Your task to perform on an android device: Open sound settings Image 0: 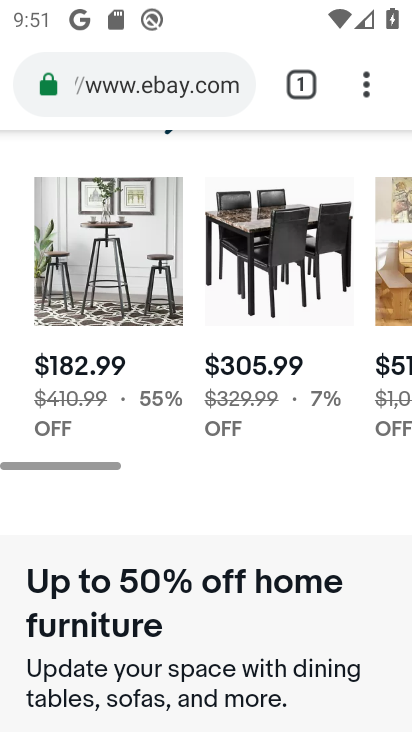
Step 0: press home button
Your task to perform on an android device: Open sound settings Image 1: 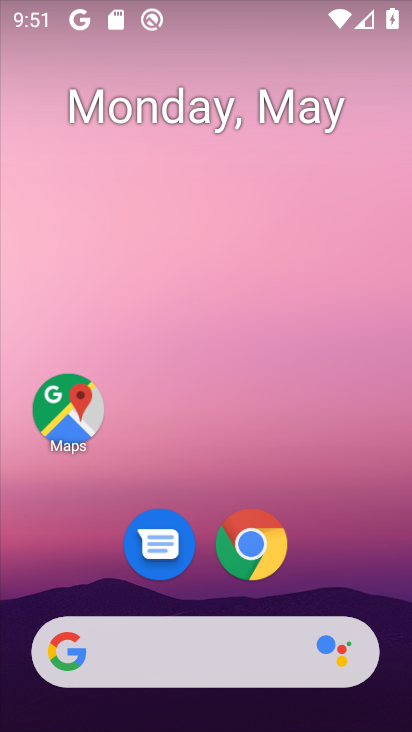
Step 1: drag from (330, 583) to (219, 178)
Your task to perform on an android device: Open sound settings Image 2: 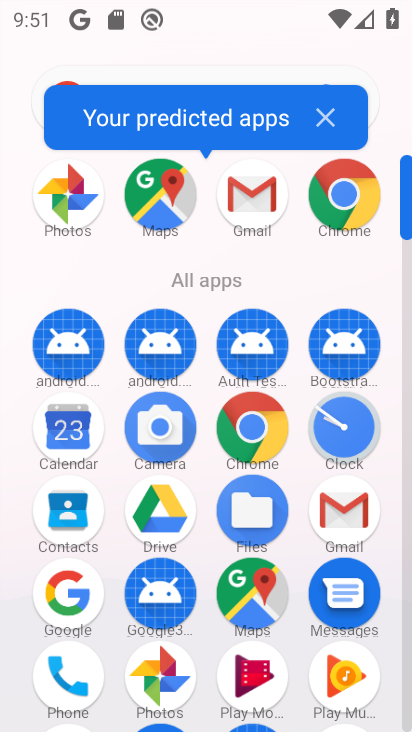
Step 2: drag from (207, 689) to (200, 199)
Your task to perform on an android device: Open sound settings Image 3: 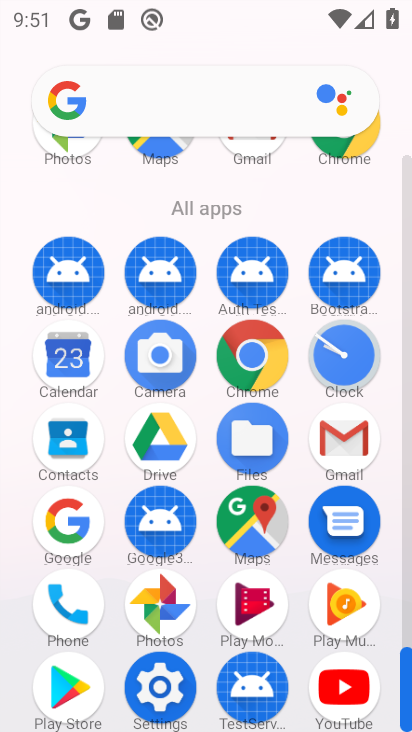
Step 3: click (169, 651)
Your task to perform on an android device: Open sound settings Image 4: 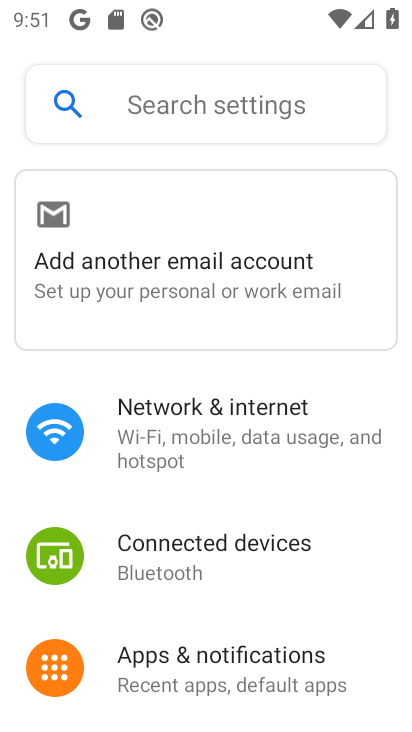
Step 4: drag from (283, 671) to (234, 234)
Your task to perform on an android device: Open sound settings Image 5: 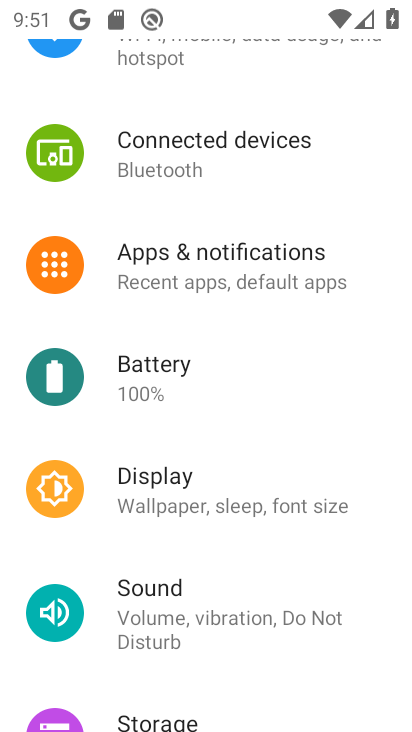
Step 5: click (176, 593)
Your task to perform on an android device: Open sound settings Image 6: 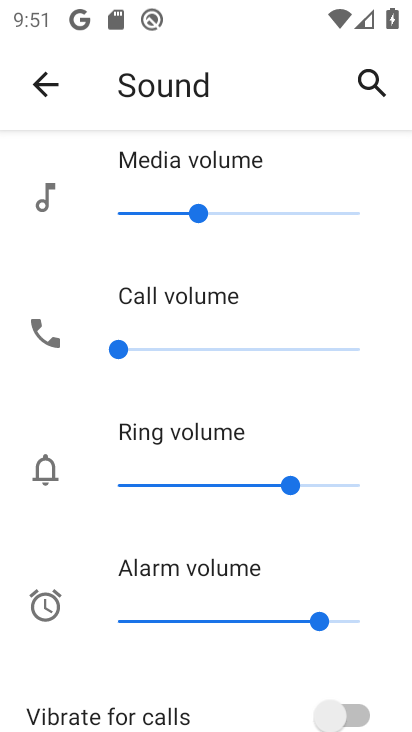
Step 6: drag from (165, 683) to (154, 198)
Your task to perform on an android device: Open sound settings Image 7: 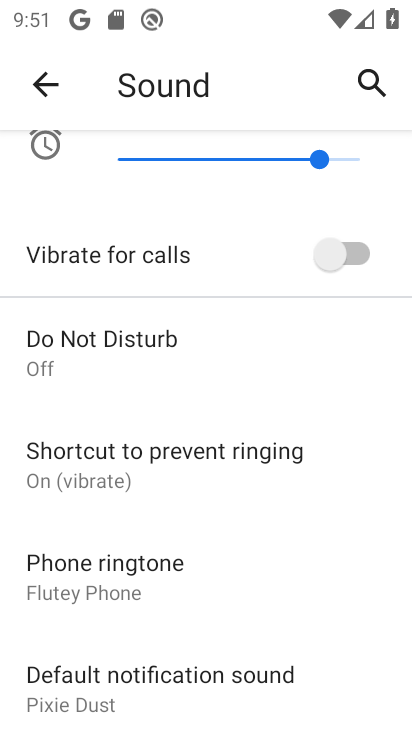
Step 7: drag from (115, 644) to (154, 282)
Your task to perform on an android device: Open sound settings Image 8: 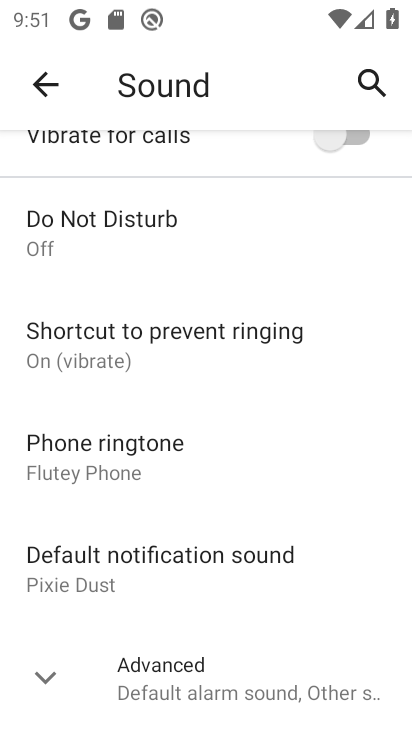
Step 8: click (178, 674)
Your task to perform on an android device: Open sound settings Image 9: 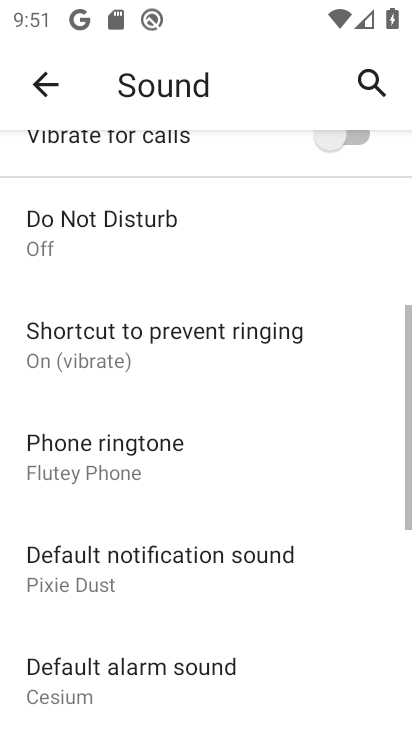
Step 9: task complete